Your task to perform on an android device: Open the calendar and show me this week's events? Image 0: 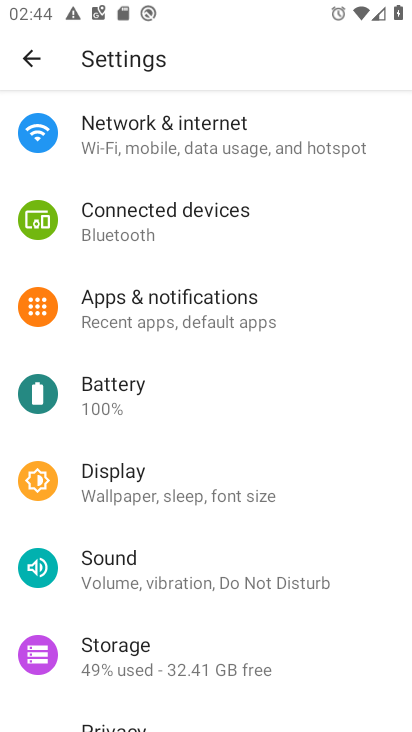
Step 0: press home button
Your task to perform on an android device: Open the calendar and show me this week's events? Image 1: 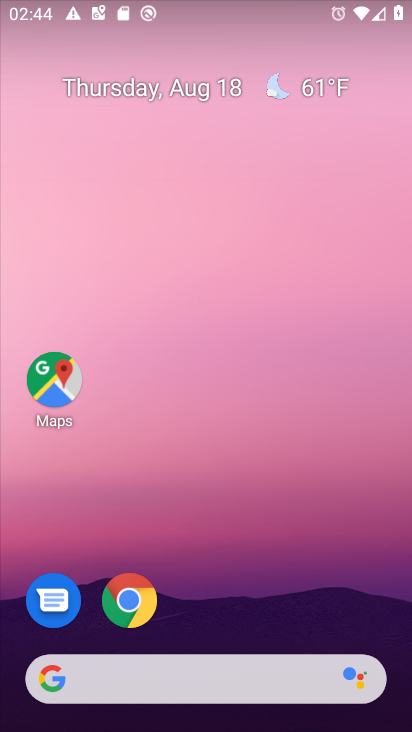
Step 1: drag from (290, 578) to (271, 103)
Your task to perform on an android device: Open the calendar and show me this week's events? Image 2: 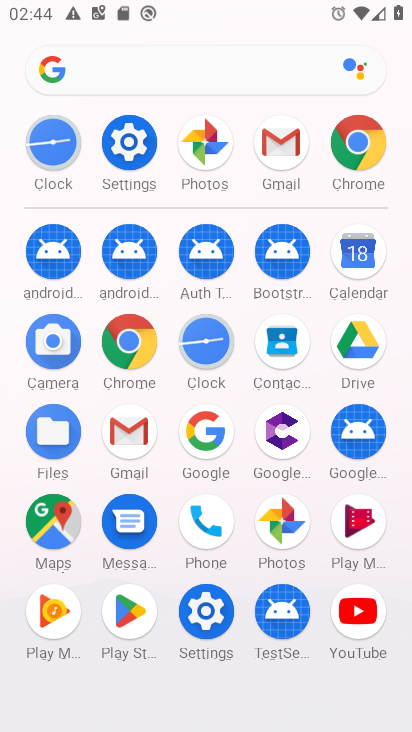
Step 2: click (346, 275)
Your task to perform on an android device: Open the calendar and show me this week's events? Image 3: 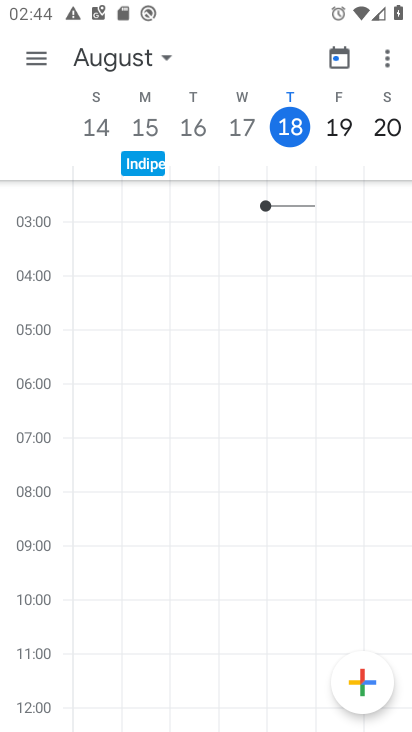
Step 3: task complete